Your task to perform on an android device: set the timer Image 0: 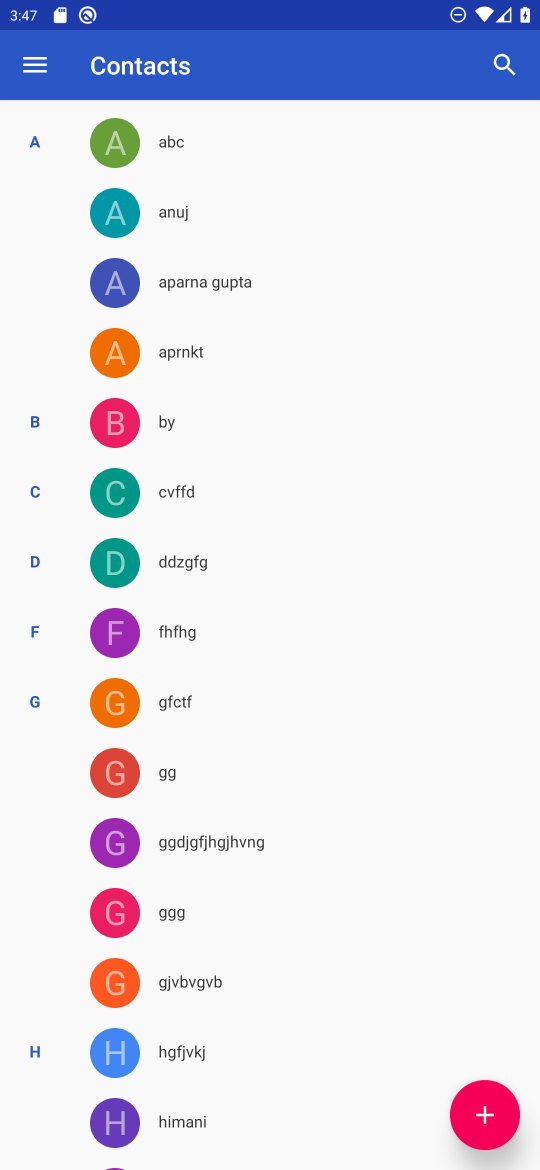
Step 0: press home button
Your task to perform on an android device: set the timer Image 1: 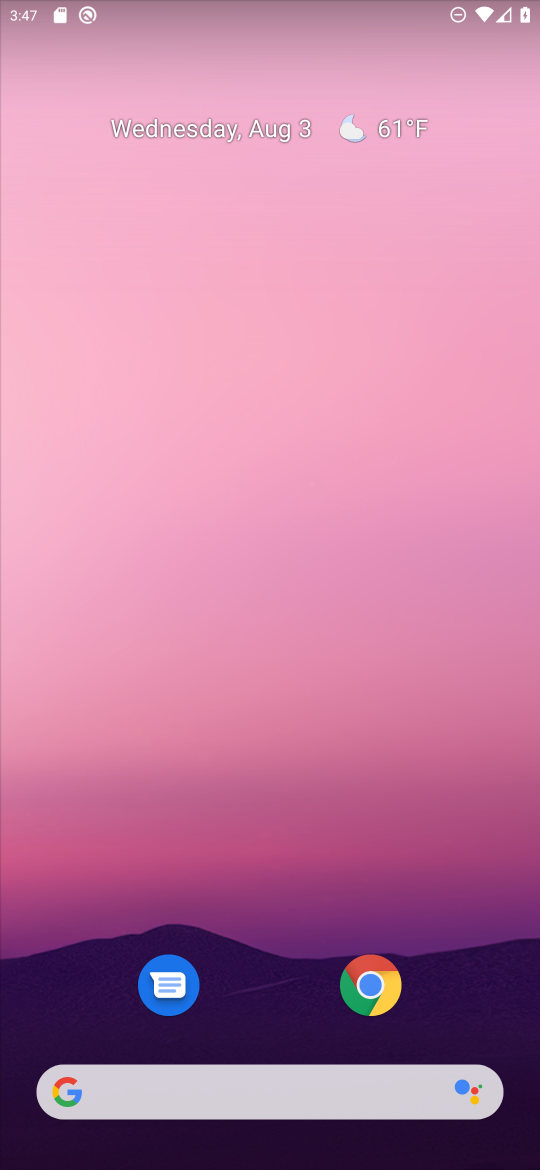
Step 1: drag from (252, 999) to (216, 24)
Your task to perform on an android device: set the timer Image 2: 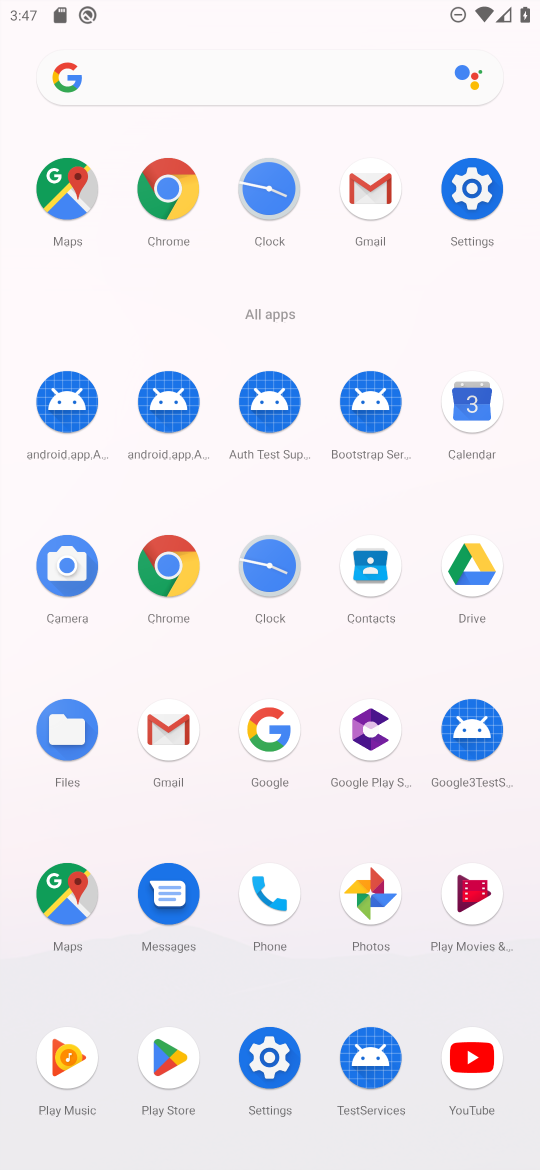
Step 2: click (252, 561)
Your task to perform on an android device: set the timer Image 3: 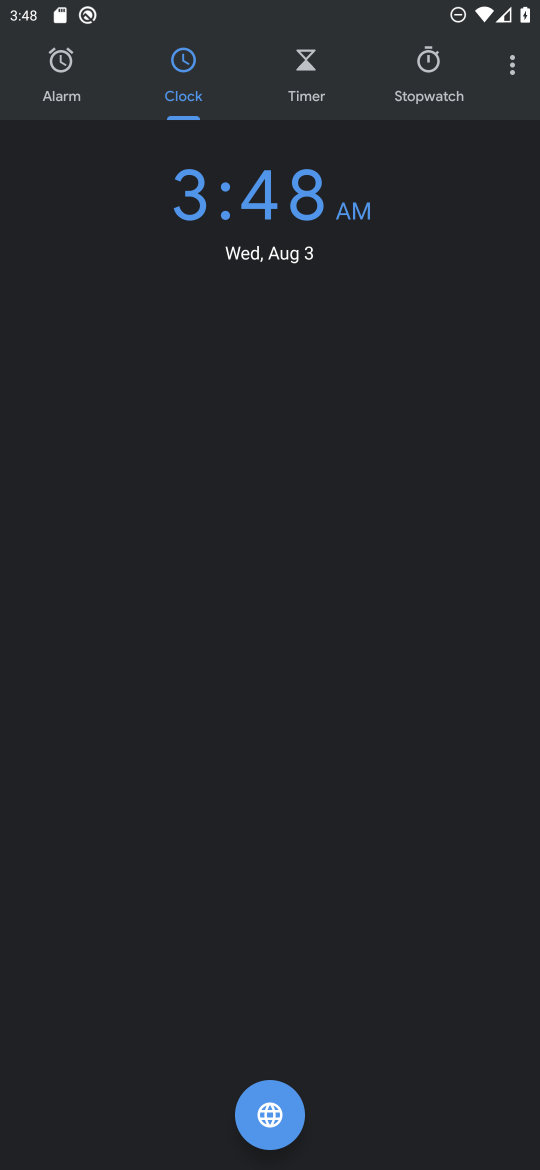
Step 3: click (327, 76)
Your task to perform on an android device: set the timer Image 4: 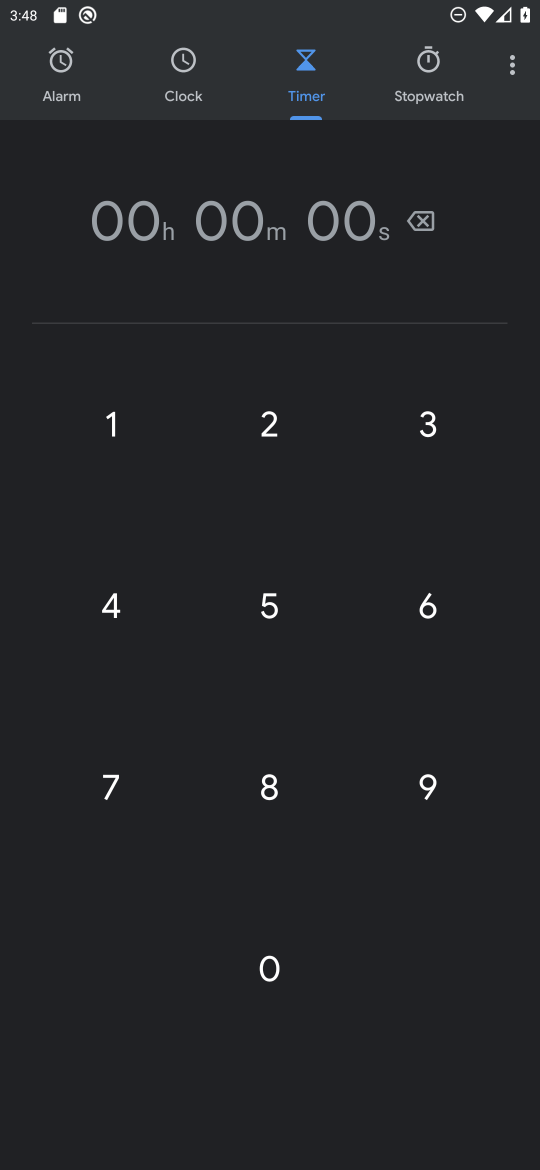
Step 4: click (279, 451)
Your task to perform on an android device: set the timer Image 5: 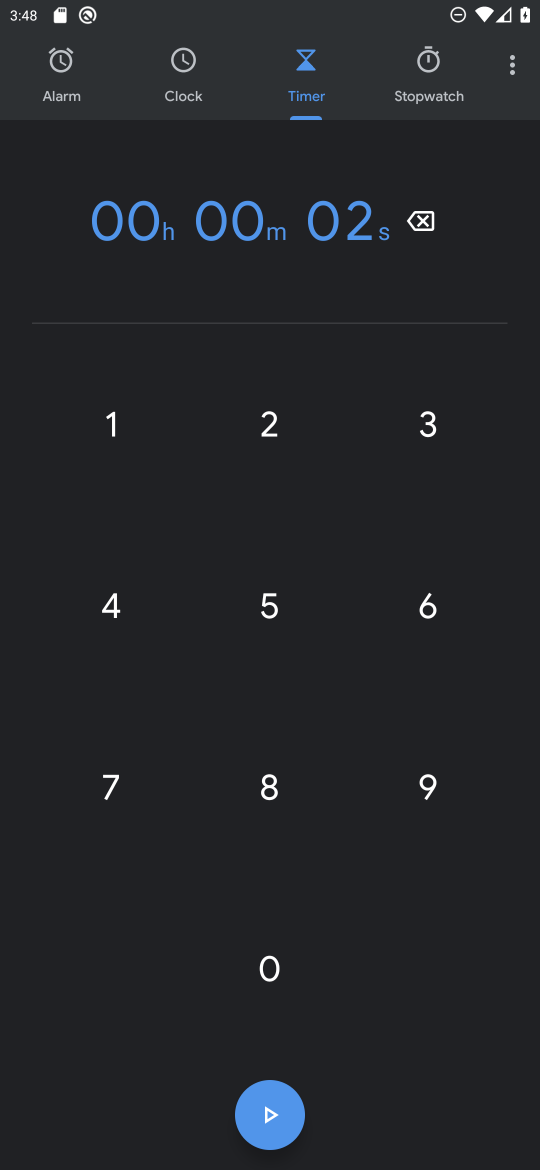
Step 5: click (279, 586)
Your task to perform on an android device: set the timer Image 6: 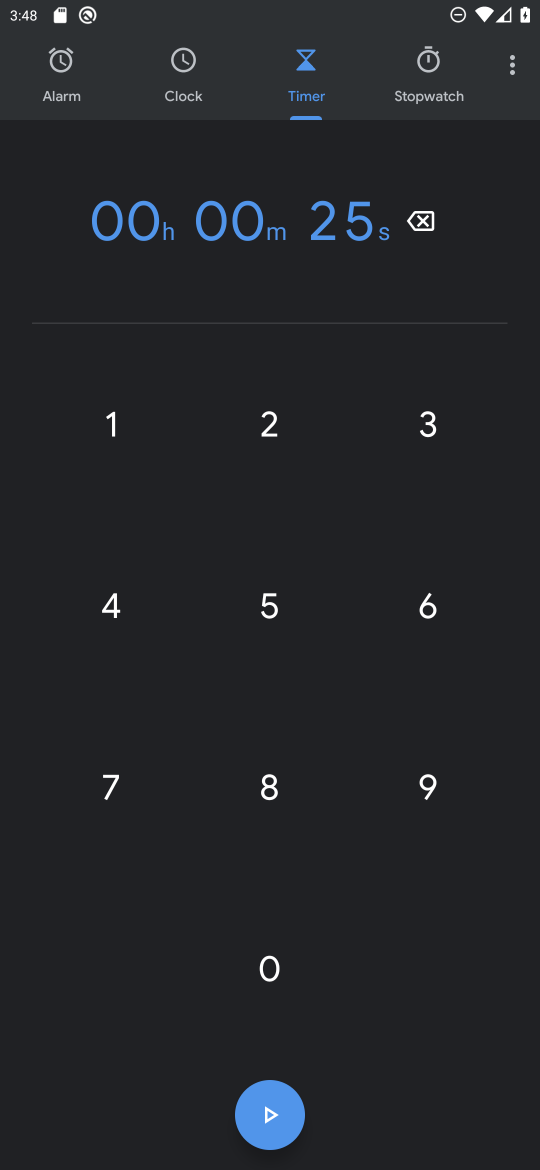
Step 6: click (272, 785)
Your task to perform on an android device: set the timer Image 7: 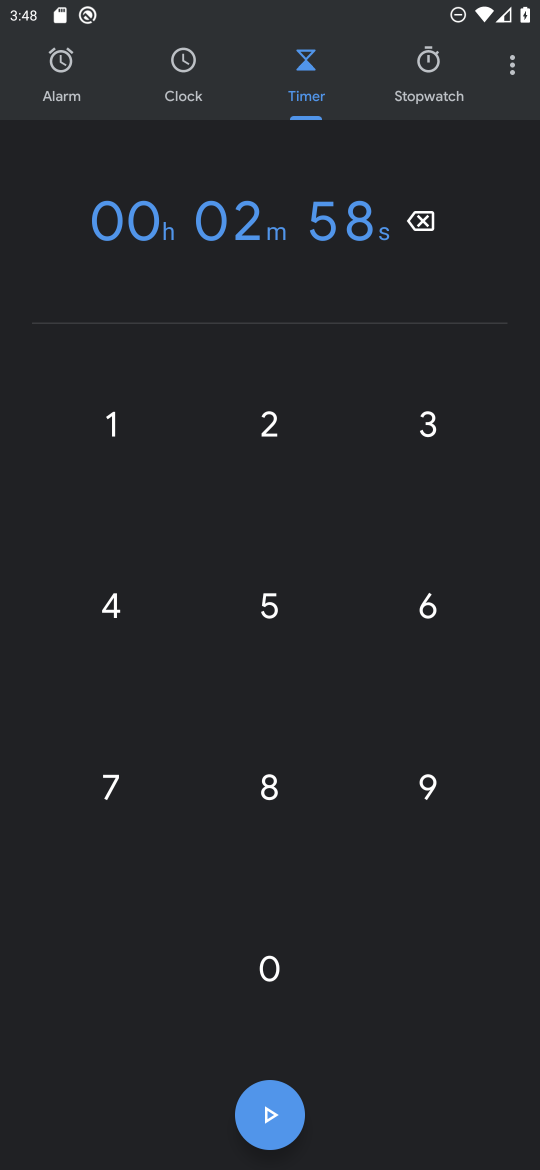
Step 7: click (272, 943)
Your task to perform on an android device: set the timer Image 8: 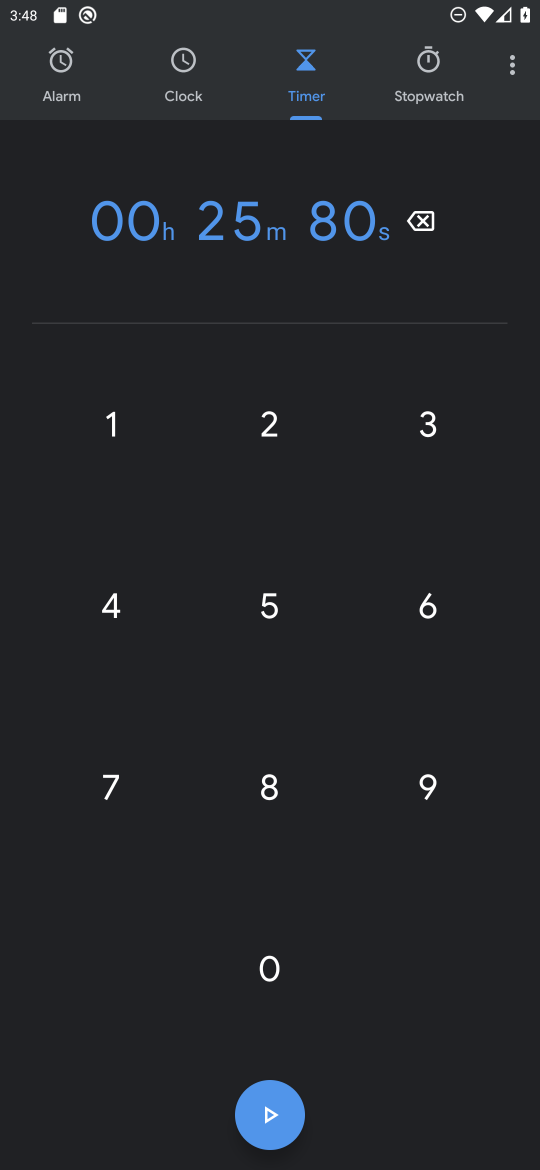
Step 8: click (396, 788)
Your task to perform on an android device: set the timer Image 9: 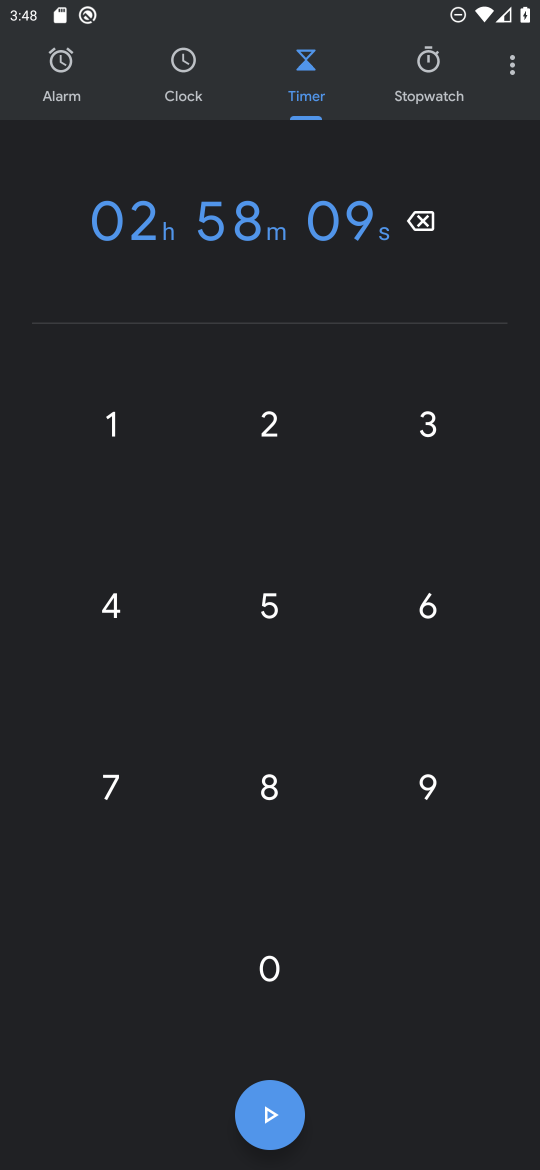
Step 9: click (404, 643)
Your task to perform on an android device: set the timer Image 10: 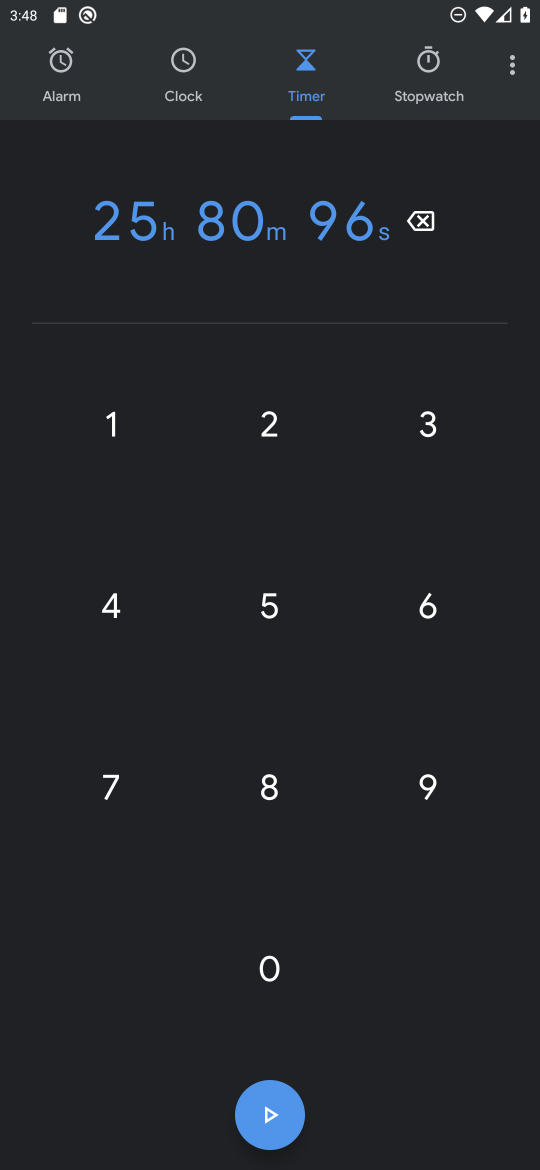
Step 10: click (269, 1159)
Your task to perform on an android device: set the timer Image 11: 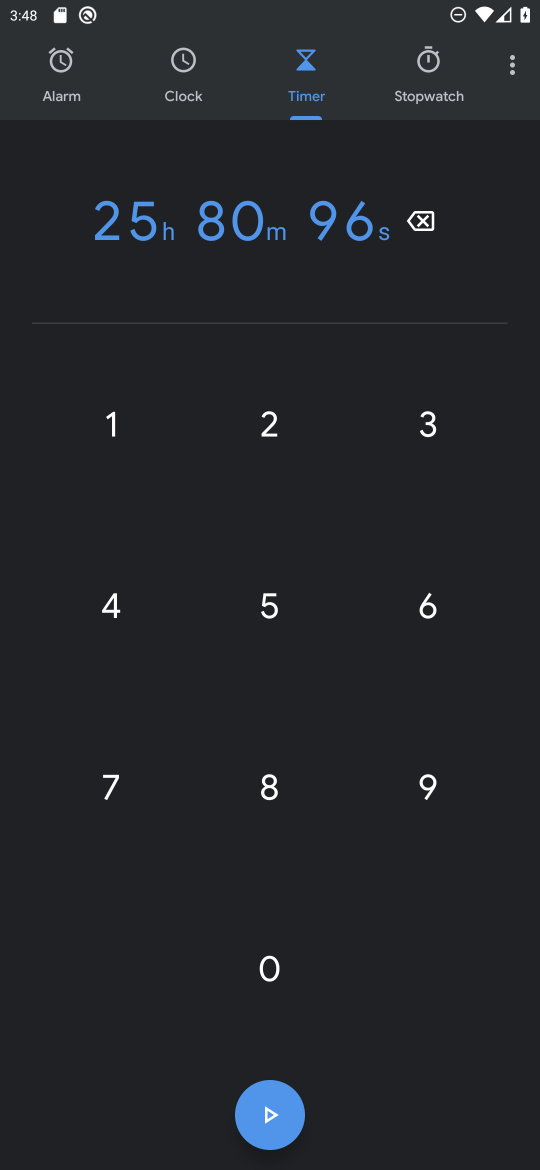
Step 11: click (274, 1119)
Your task to perform on an android device: set the timer Image 12: 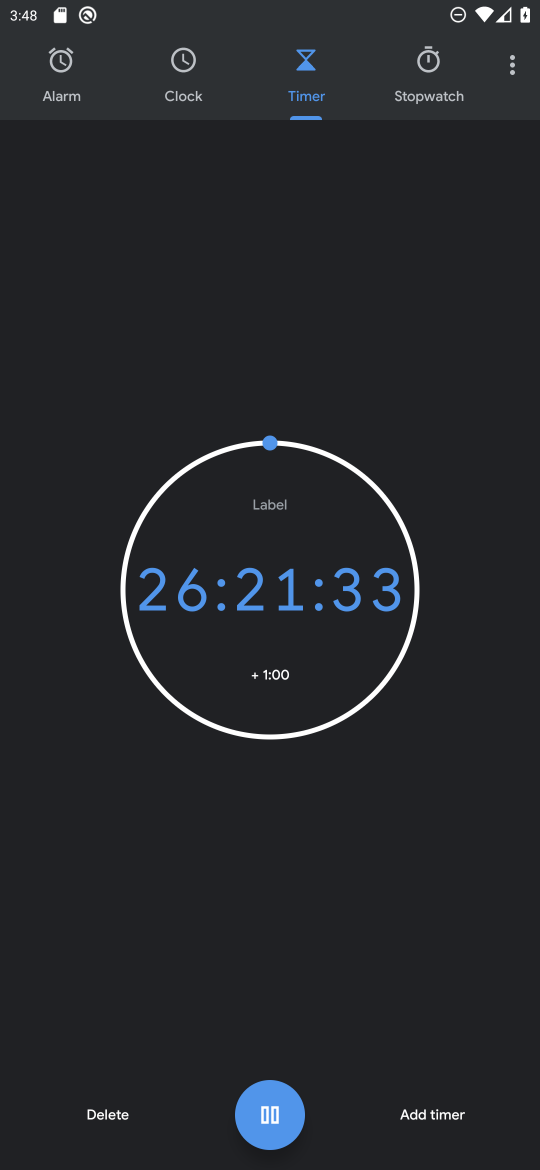
Step 12: task complete